Your task to perform on an android device: all mails in gmail Image 0: 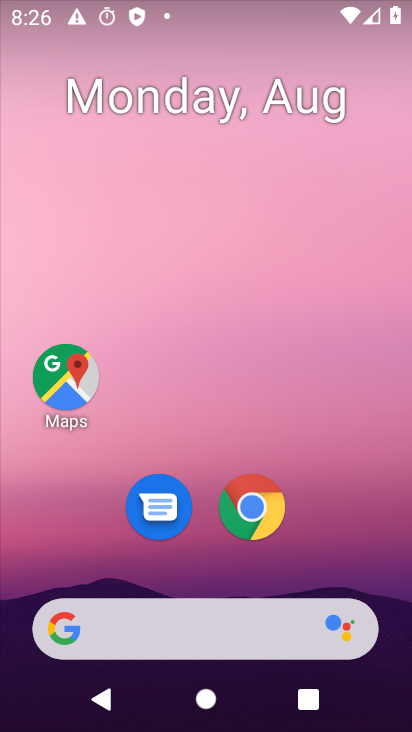
Step 0: drag from (220, 637) to (337, 187)
Your task to perform on an android device: all mails in gmail Image 1: 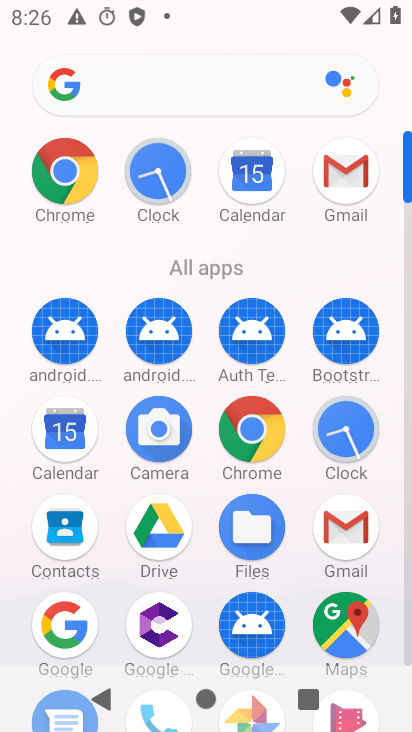
Step 1: click (349, 171)
Your task to perform on an android device: all mails in gmail Image 2: 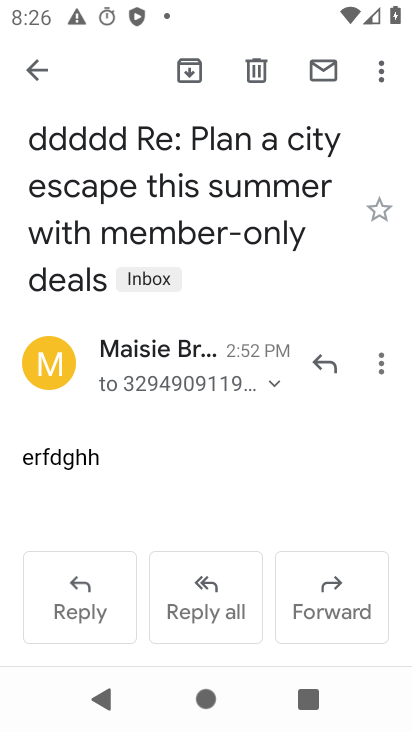
Step 2: click (34, 74)
Your task to perform on an android device: all mails in gmail Image 3: 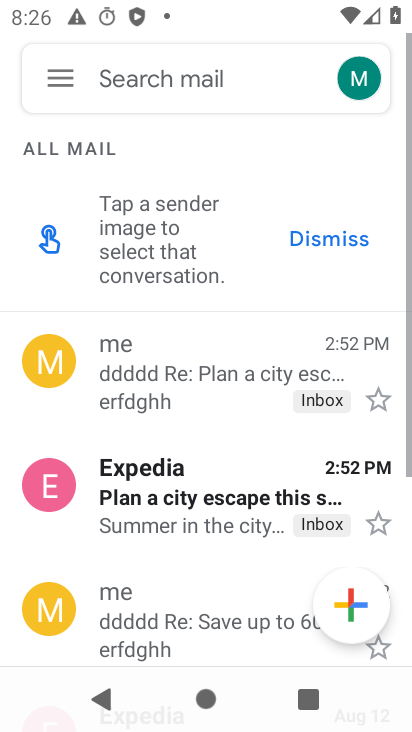
Step 3: task complete